Your task to perform on an android device: create a new album in the google photos Image 0: 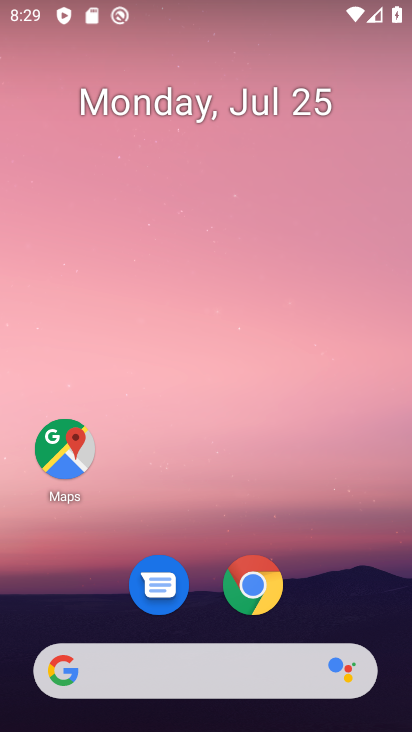
Step 0: press home button
Your task to perform on an android device: create a new album in the google photos Image 1: 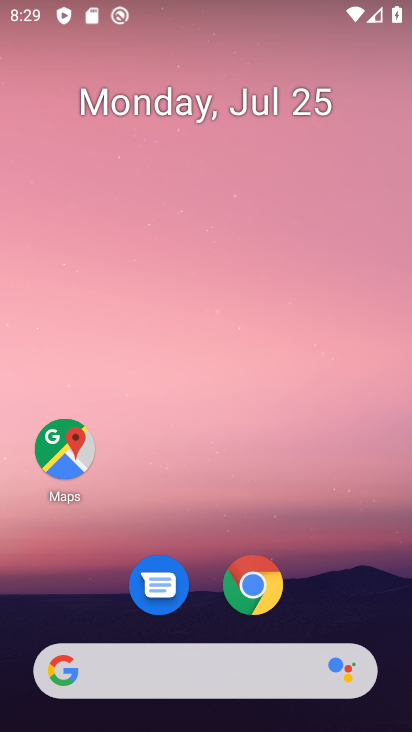
Step 1: drag from (194, 675) to (317, 152)
Your task to perform on an android device: create a new album in the google photos Image 2: 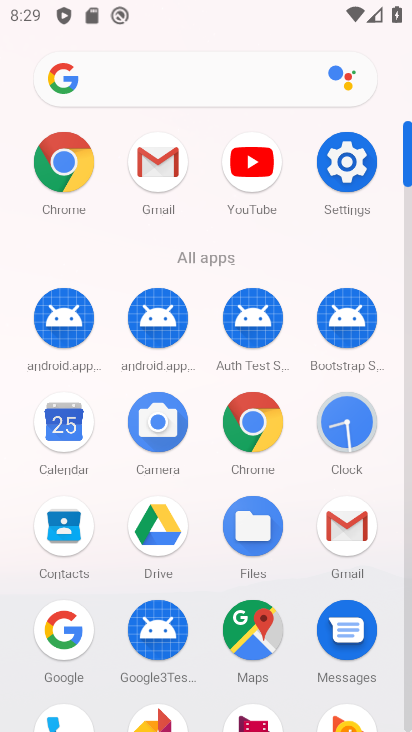
Step 2: drag from (207, 650) to (357, 150)
Your task to perform on an android device: create a new album in the google photos Image 3: 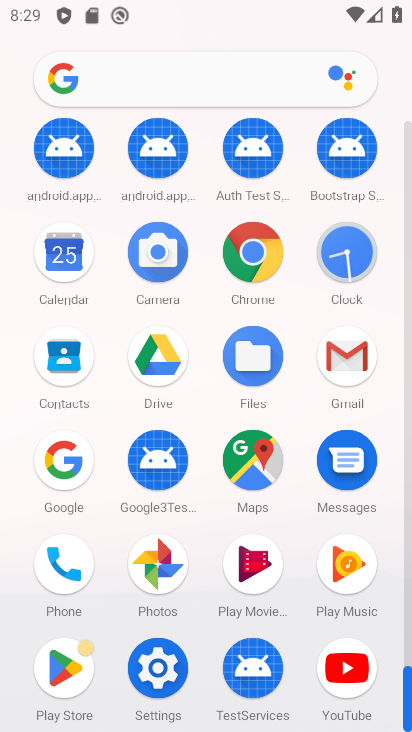
Step 3: click (150, 556)
Your task to perform on an android device: create a new album in the google photos Image 4: 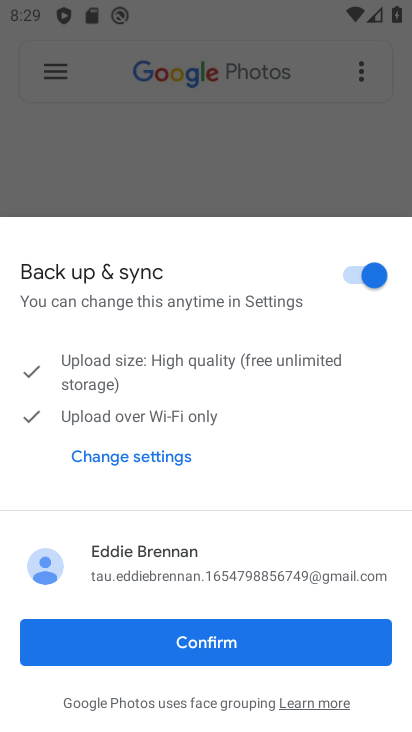
Step 4: click (183, 641)
Your task to perform on an android device: create a new album in the google photos Image 5: 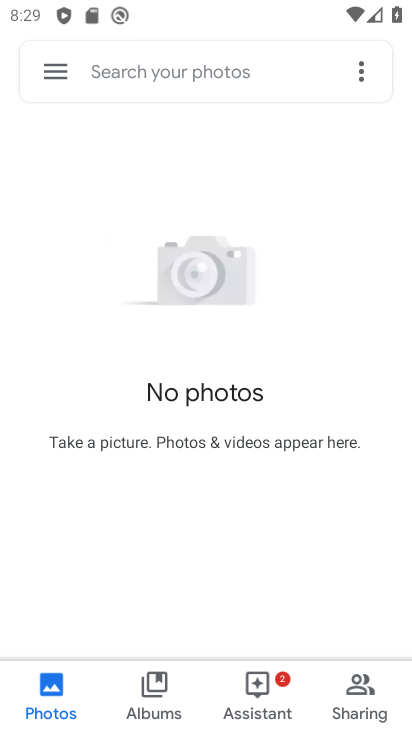
Step 5: click (152, 685)
Your task to perform on an android device: create a new album in the google photos Image 6: 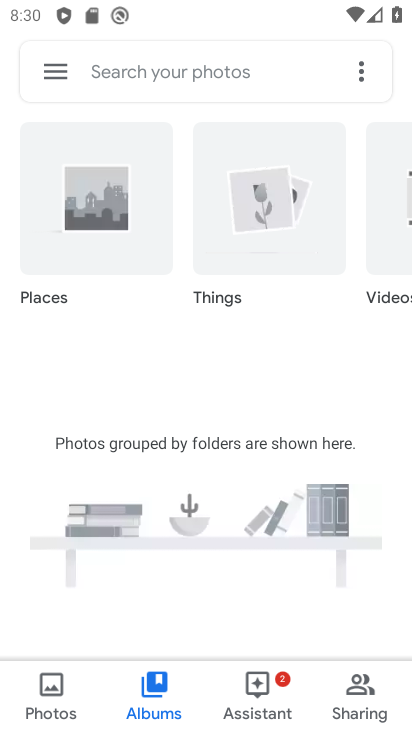
Step 6: task complete